Your task to perform on an android device: Open accessibility settings Image 0: 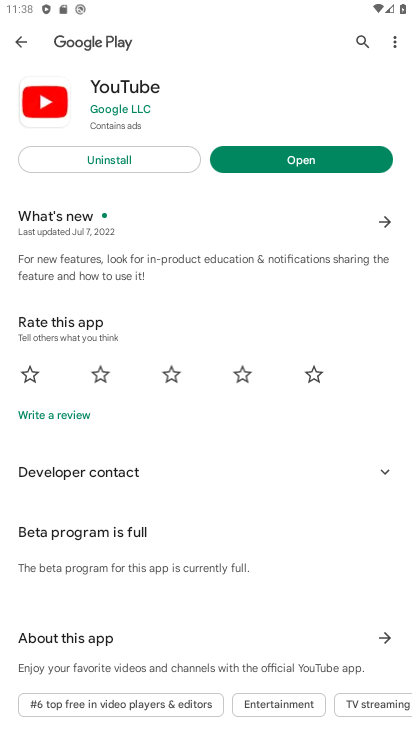
Step 0: press home button
Your task to perform on an android device: Open accessibility settings Image 1: 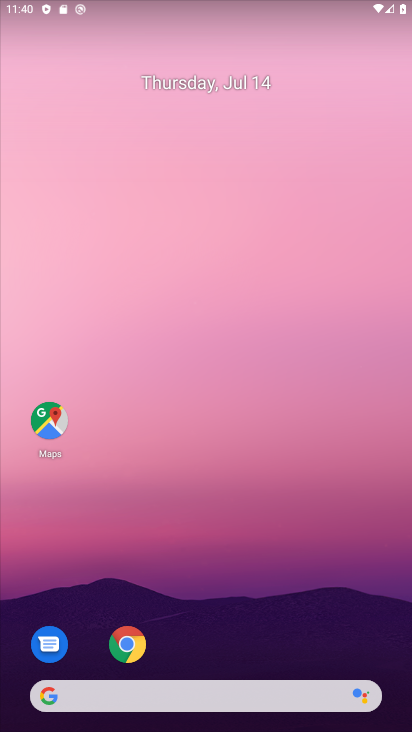
Step 1: drag from (367, 567) to (220, 6)
Your task to perform on an android device: Open accessibility settings Image 2: 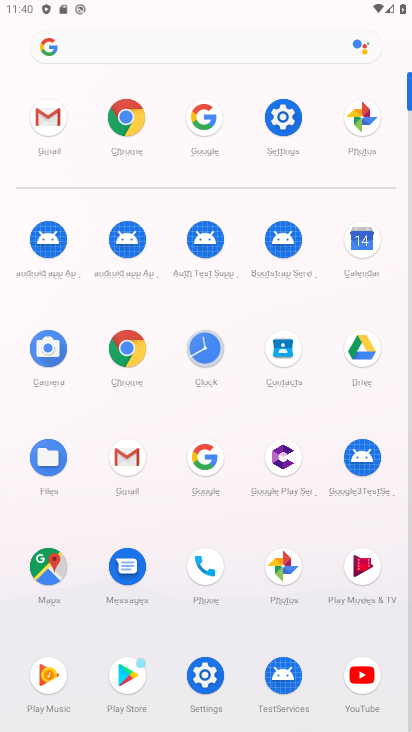
Step 2: click (204, 689)
Your task to perform on an android device: Open accessibility settings Image 3: 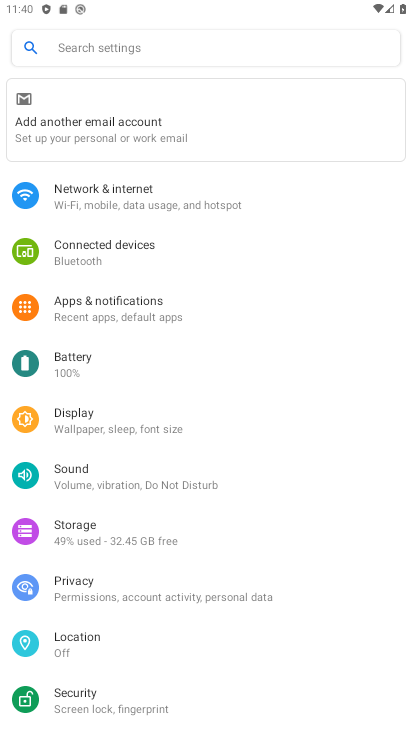
Step 3: drag from (140, 653) to (162, 113)
Your task to perform on an android device: Open accessibility settings Image 4: 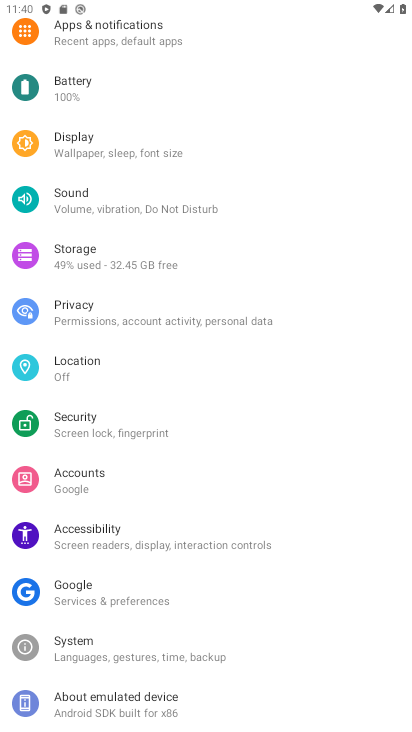
Step 4: click (134, 538)
Your task to perform on an android device: Open accessibility settings Image 5: 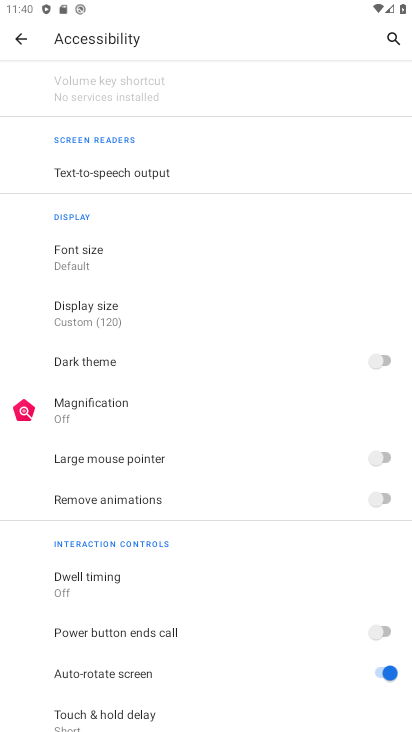
Step 5: task complete